Your task to perform on an android device: check storage Image 0: 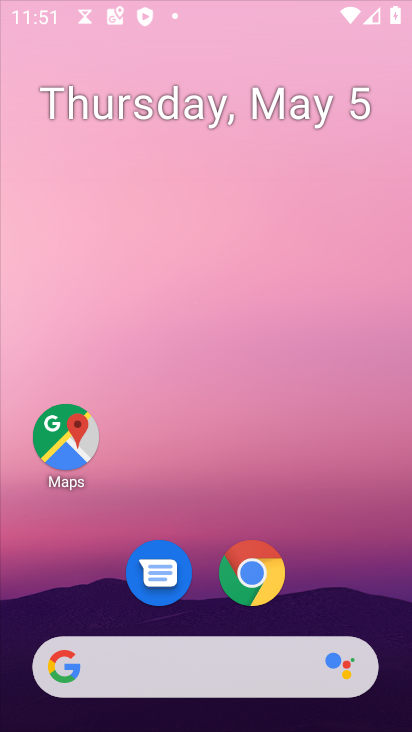
Step 0: click (335, 281)
Your task to perform on an android device: check storage Image 1: 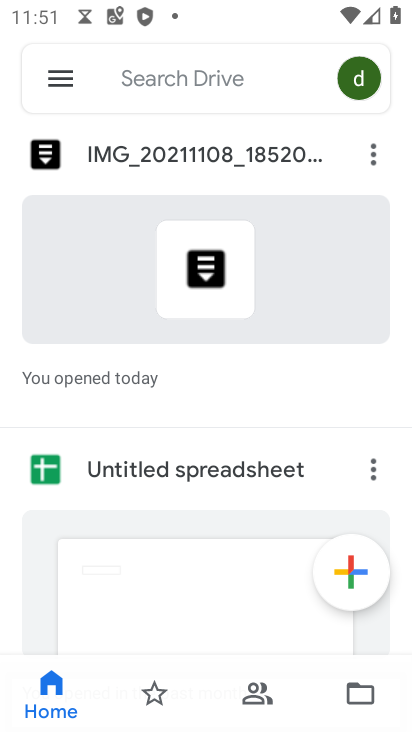
Step 1: press home button
Your task to perform on an android device: check storage Image 2: 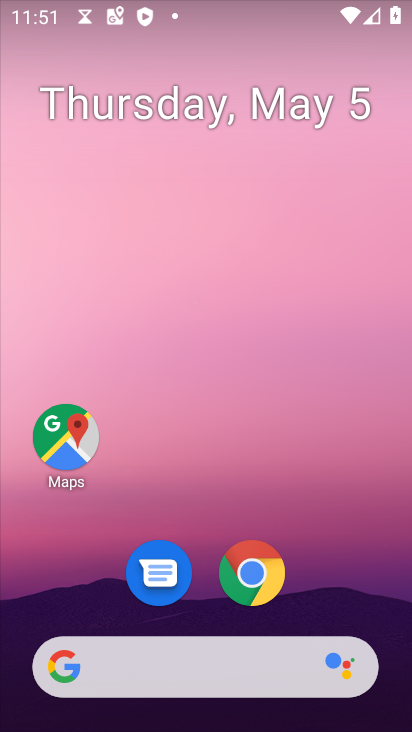
Step 2: drag from (340, 583) to (302, 260)
Your task to perform on an android device: check storage Image 3: 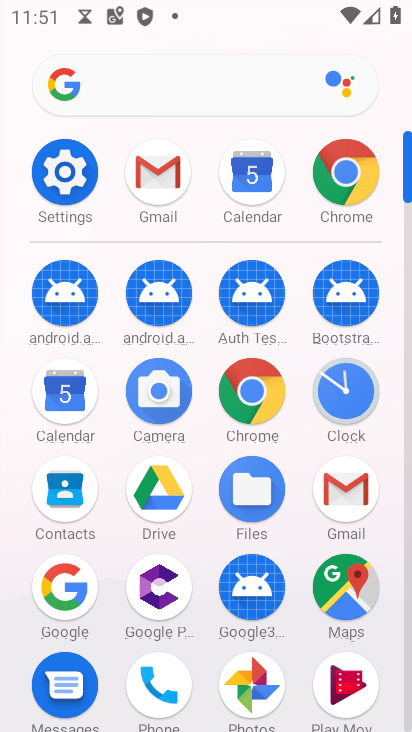
Step 3: click (69, 173)
Your task to perform on an android device: check storage Image 4: 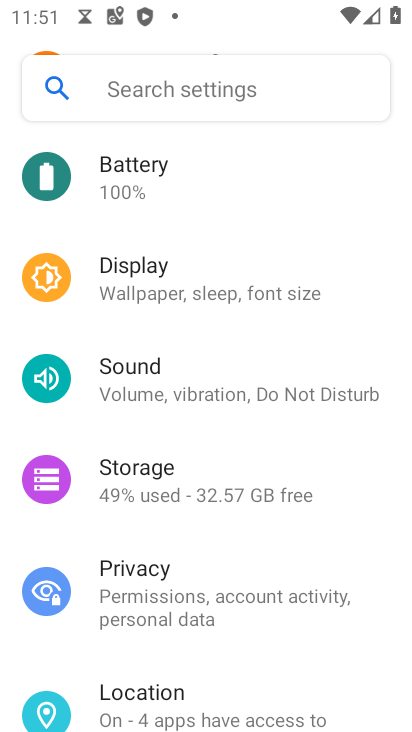
Step 4: click (203, 501)
Your task to perform on an android device: check storage Image 5: 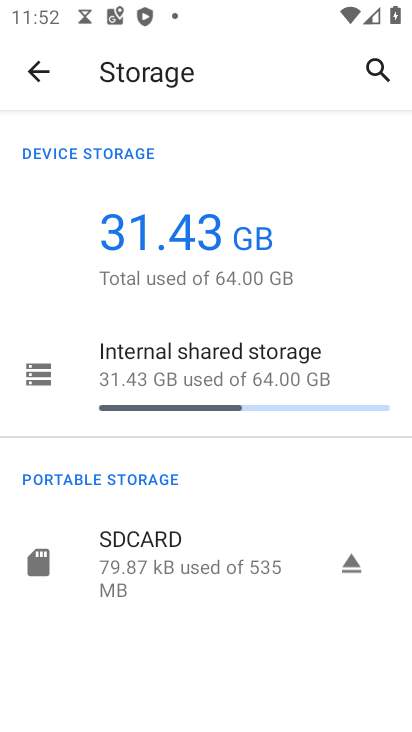
Step 5: task complete